Your task to perform on an android device: Open Yahoo.com Image 0: 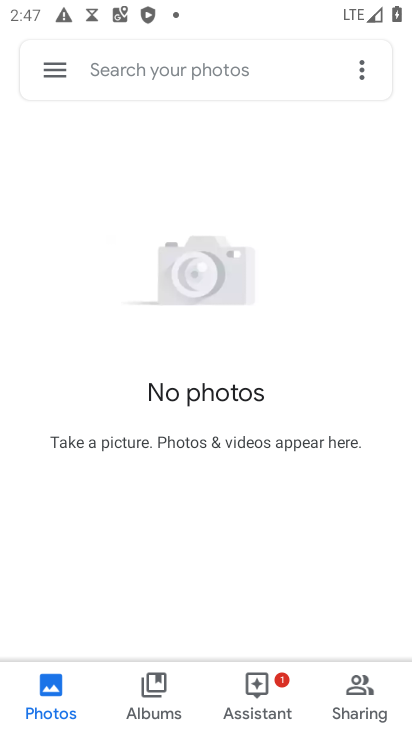
Step 0: press back button
Your task to perform on an android device: Open Yahoo.com Image 1: 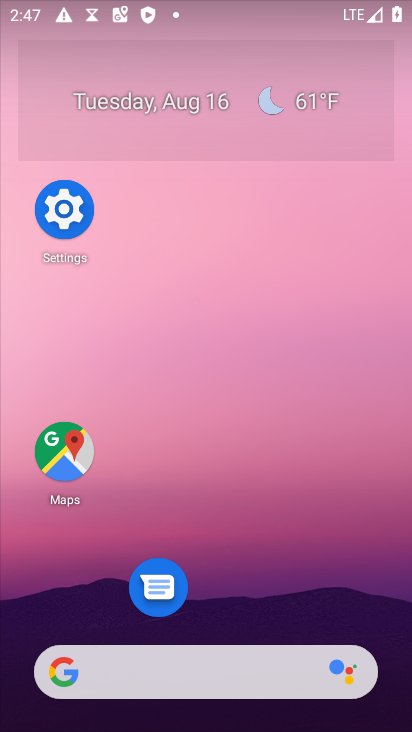
Step 1: drag from (257, 523) to (346, 31)
Your task to perform on an android device: Open Yahoo.com Image 2: 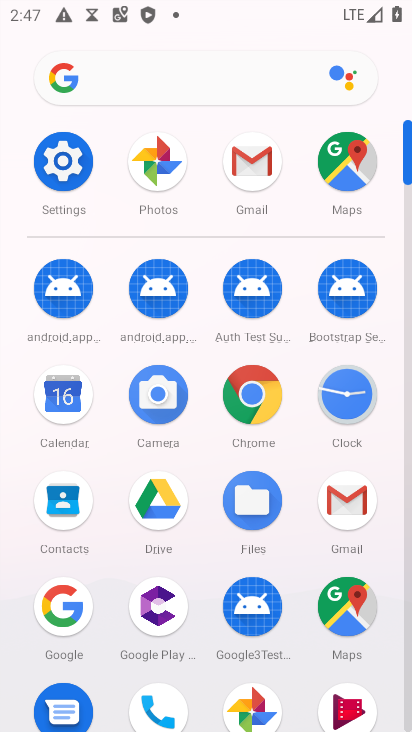
Step 2: click (261, 402)
Your task to perform on an android device: Open Yahoo.com Image 3: 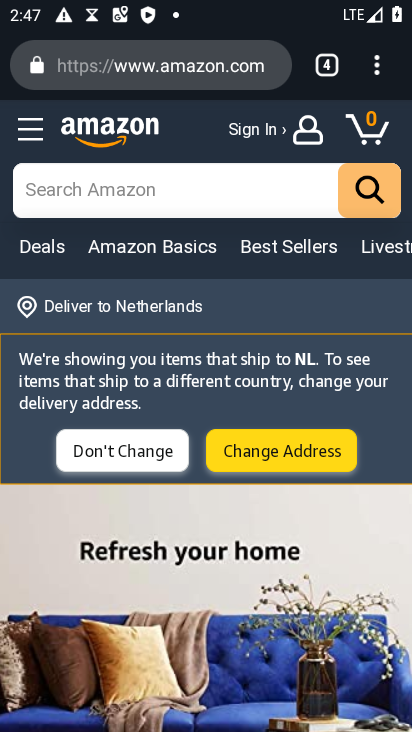
Step 3: click (324, 65)
Your task to perform on an android device: Open Yahoo.com Image 4: 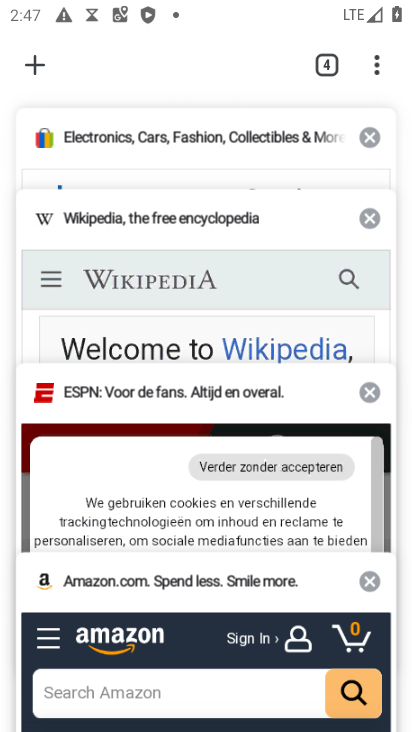
Step 4: click (29, 62)
Your task to perform on an android device: Open Yahoo.com Image 5: 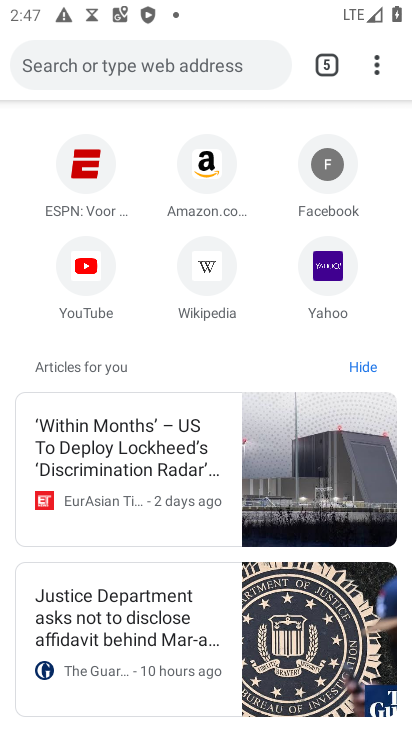
Step 5: click (322, 262)
Your task to perform on an android device: Open Yahoo.com Image 6: 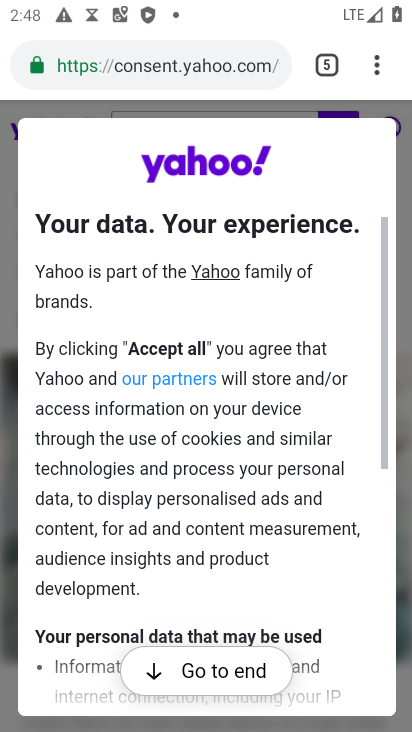
Step 6: task complete